Your task to perform on an android device: toggle sleep mode Image 0: 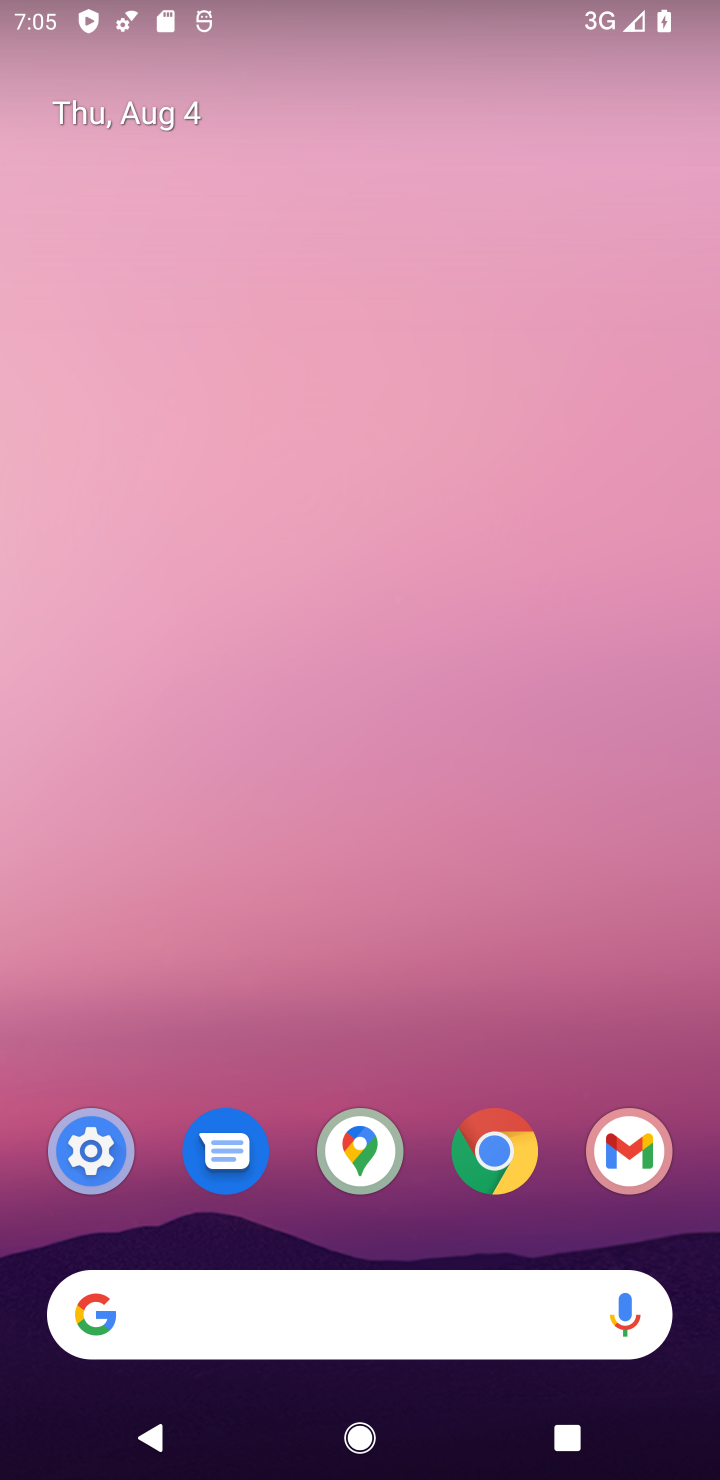
Step 0: drag from (573, 1030) to (531, 76)
Your task to perform on an android device: toggle sleep mode Image 1: 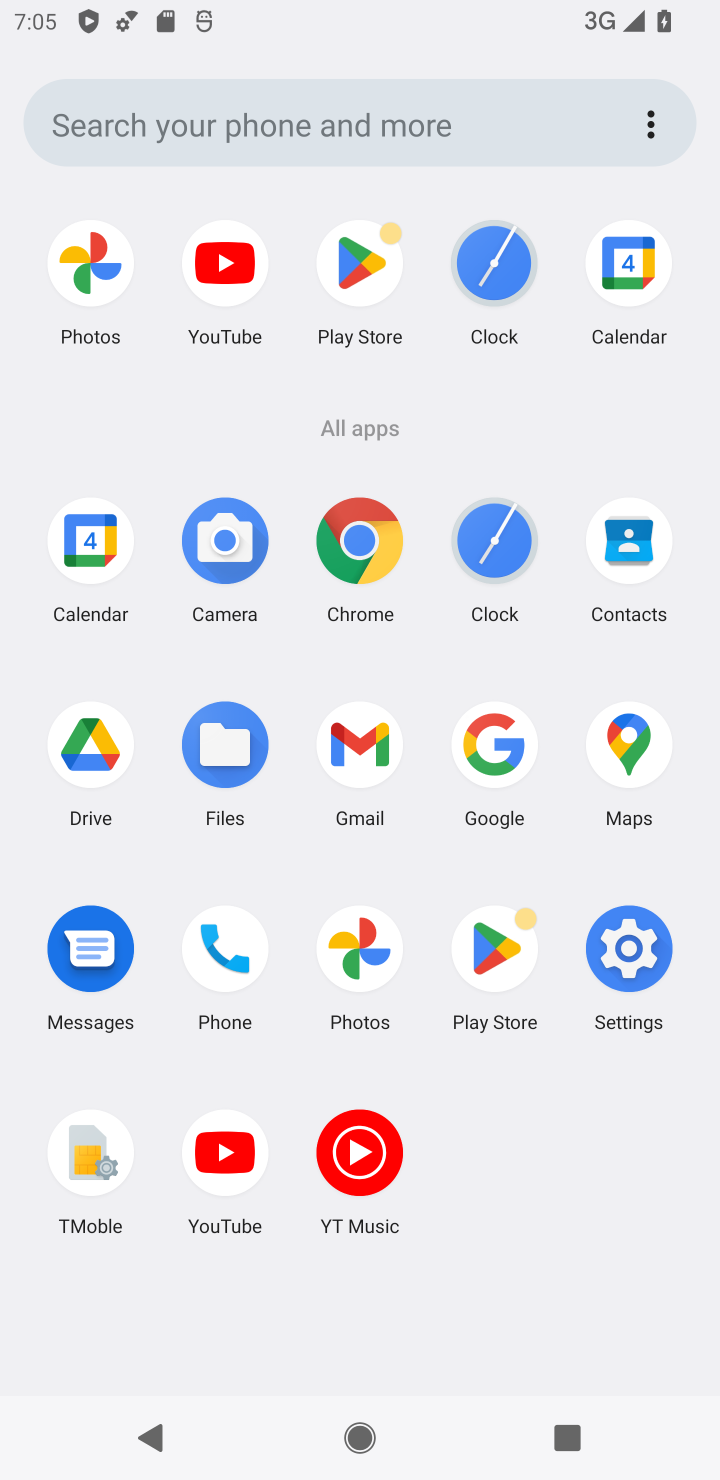
Step 1: click (649, 942)
Your task to perform on an android device: toggle sleep mode Image 2: 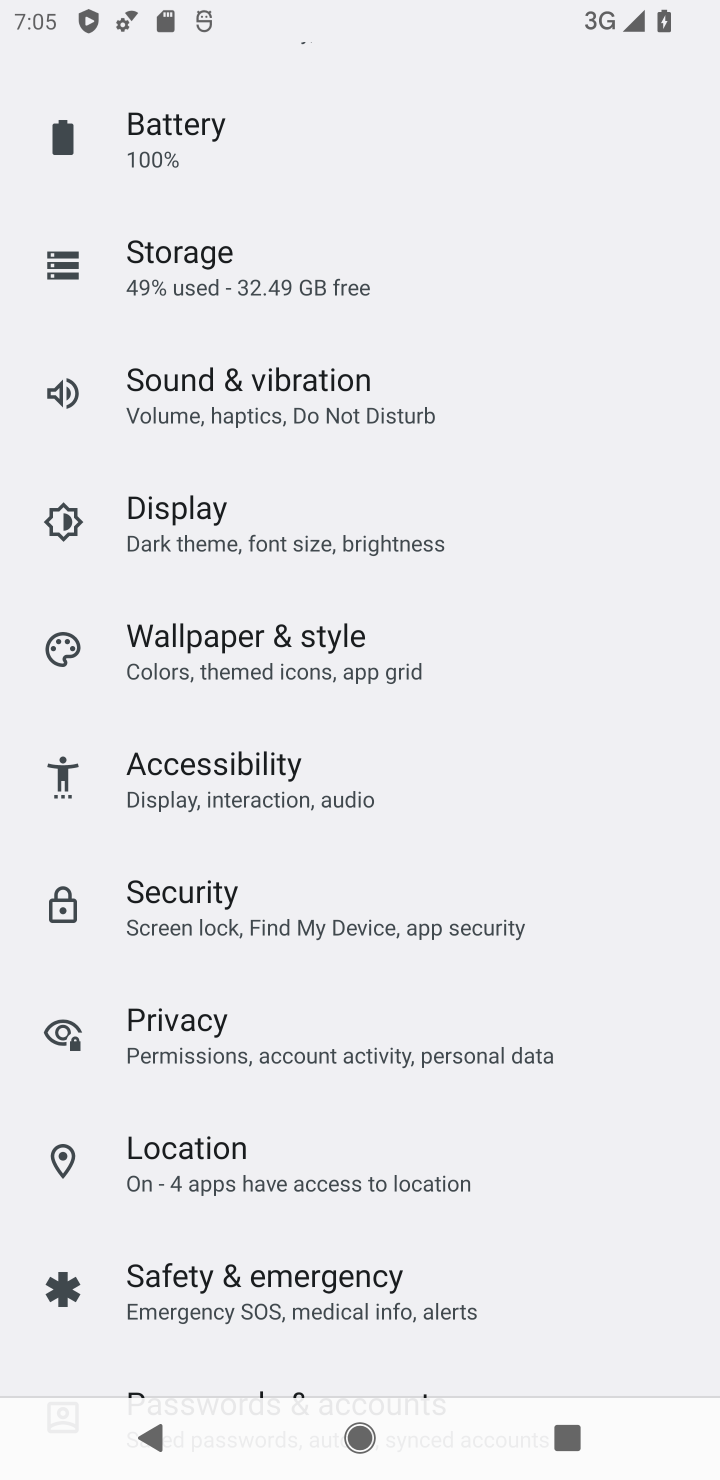
Step 2: drag from (479, 1261) to (381, 1389)
Your task to perform on an android device: toggle sleep mode Image 3: 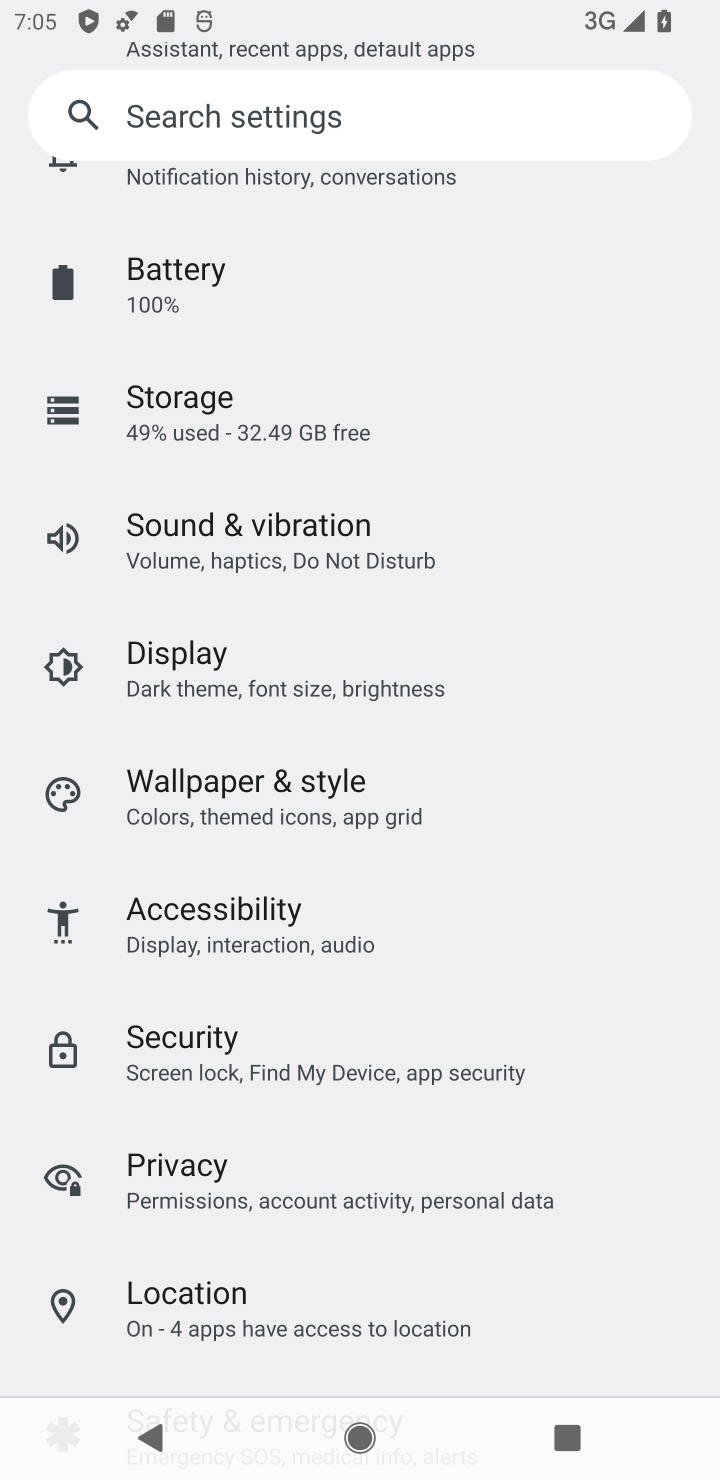
Step 3: click (351, 678)
Your task to perform on an android device: toggle sleep mode Image 4: 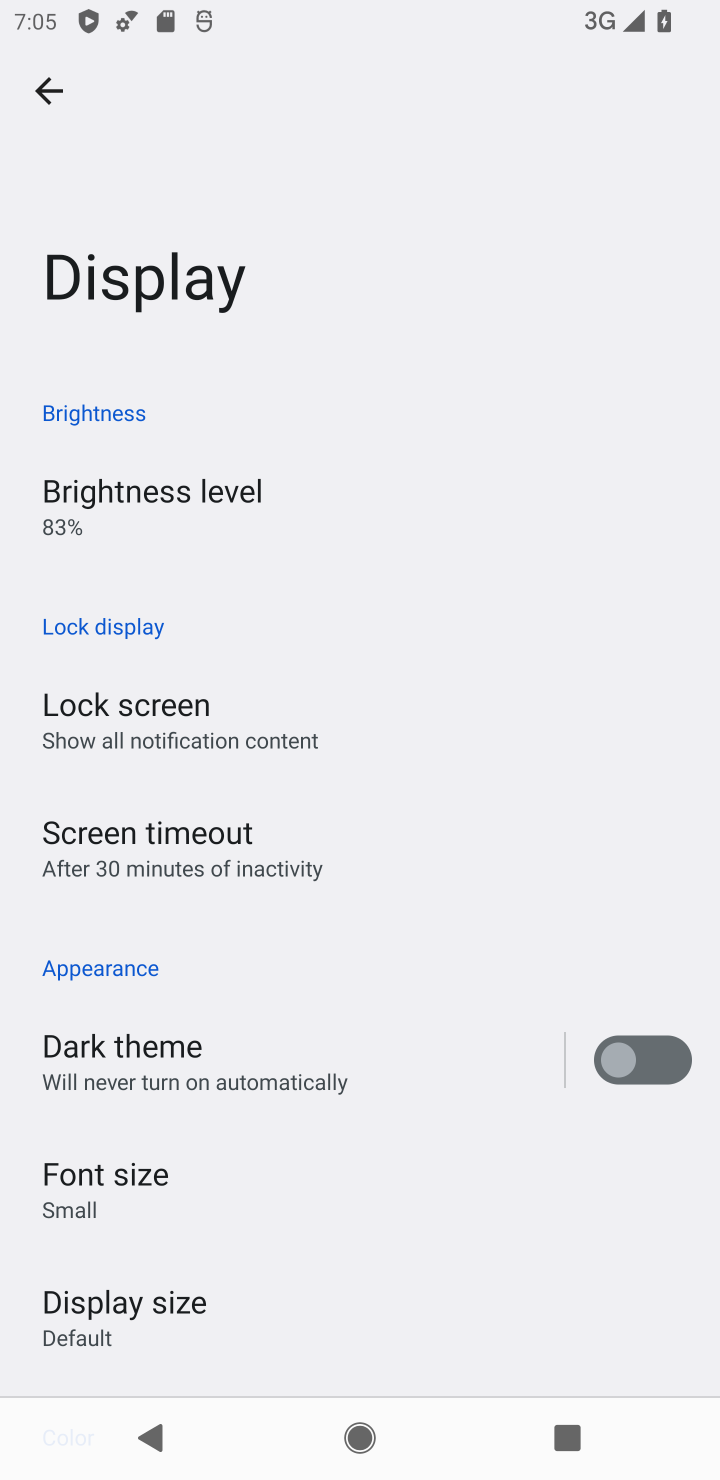
Step 4: task complete